Your task to perform on an android device: Open battery settings Image 0: 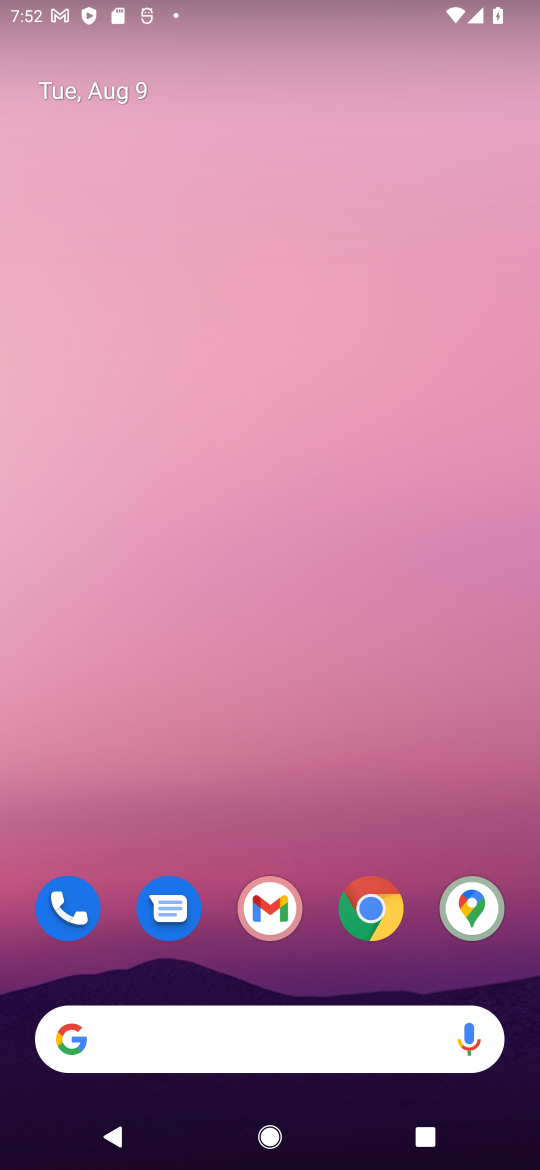
Step 0: drag from (300, 994) to (286, 89)
Your task to perform on an android device: Open battery settings Image 1: 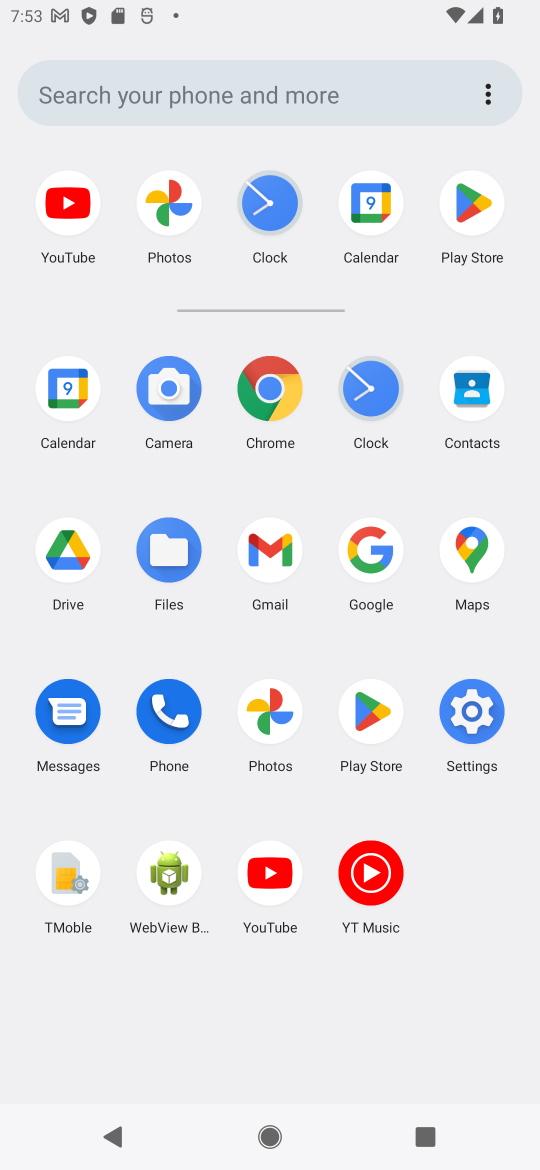
Step 1: click (470, 712)
Your task to perform on an android device: Open battery settings Image 2: 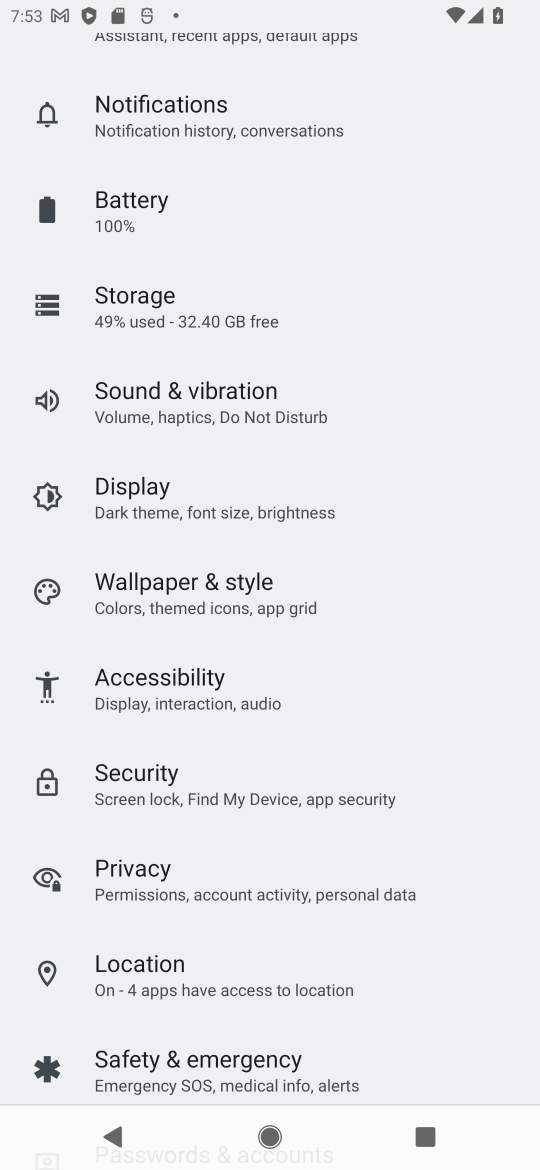
Step 2: click (121, 206)
Your task to perform on an android device: Open battery settings Image 3: 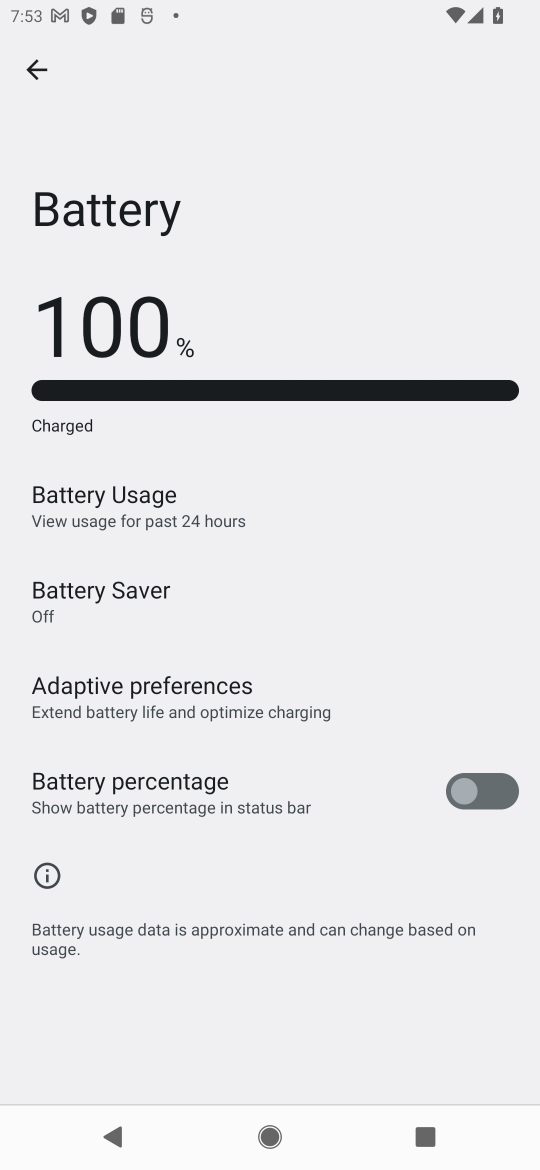
Step 3: task complete